Your task to perform on an android device: delete location history Image 0: 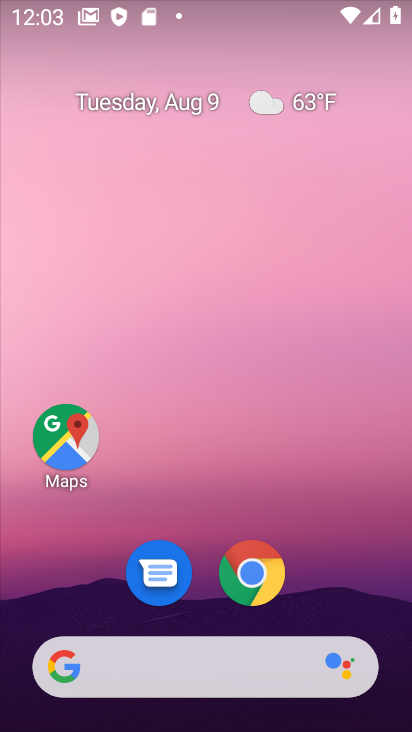
Step 0: drag from (169, 636) to (117, 278)
Your task to perform on an android device: delete location history Image 1: 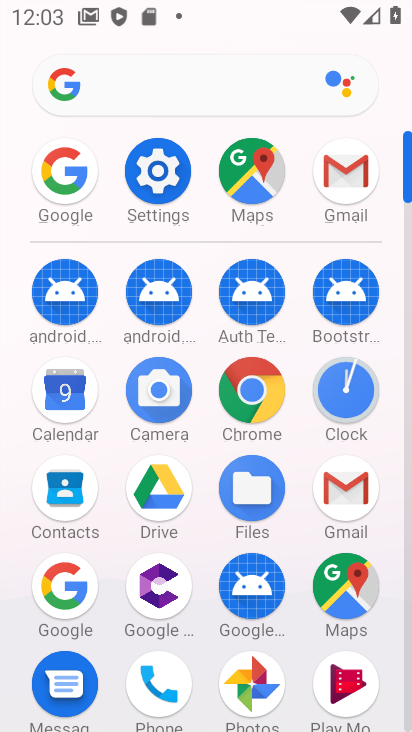
Step 1: click (160, 171)
Your task to perform on an android device: delete location history Image 2: 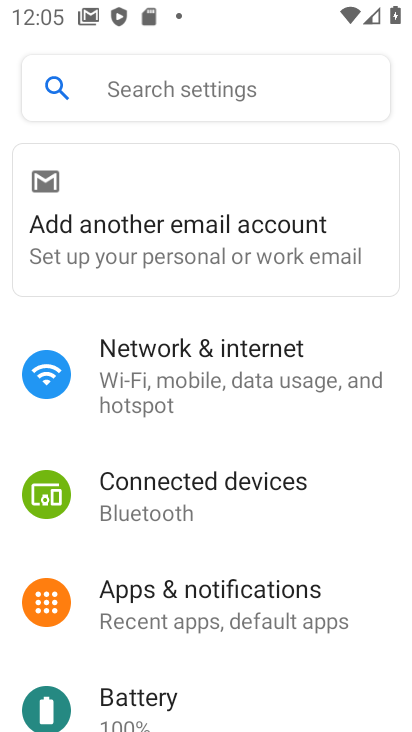
Step 2: drag from (210, 707) to (210, 283)
Your task to perform on an android device: delete location history Image 3: 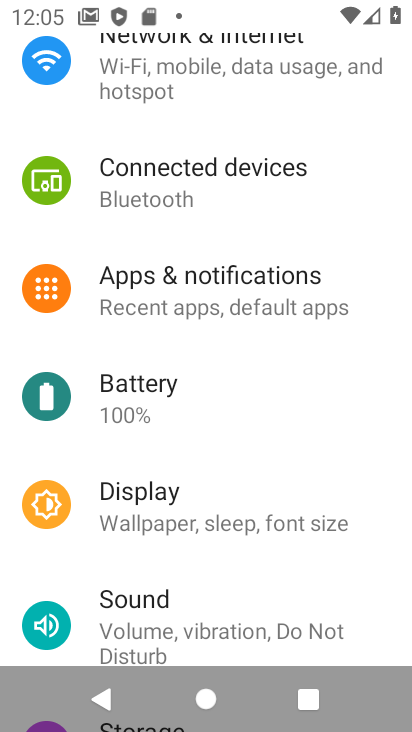
Step 3: drag from (180, 589) to (180, 148)
Your task to perform on an android device: delete location history Image 4: 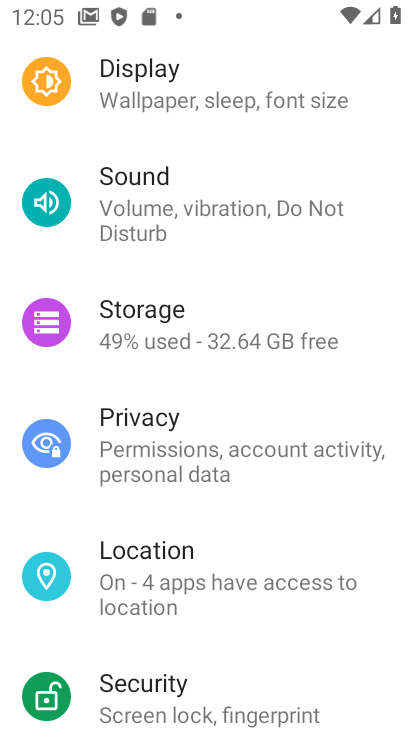
Step 4: drag from (149, 669) to (155, 225)
Your task to perform on an android device: delete location history Image 5: 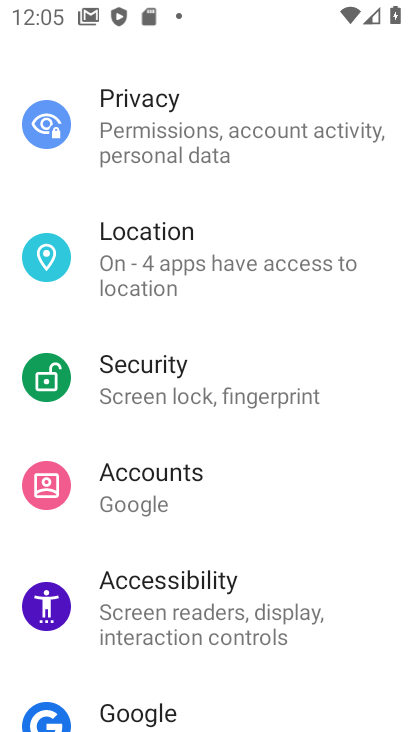
Step 5: click (156, 253)
Your task to perform on an android device: delete location history Image 6: 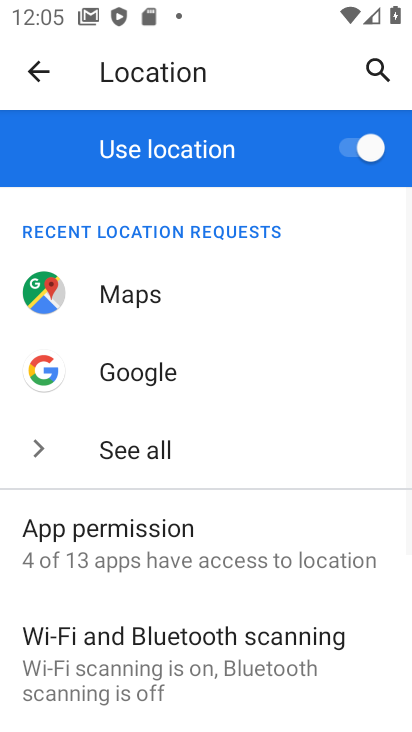
Step 6: drag from (124, 657) to (132, 299)
Your task to perform on an android device: delete location history Image 7: 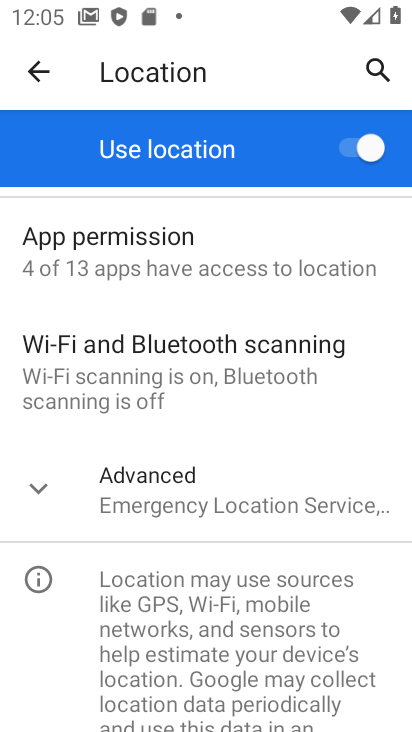
Step 7: click (151, 473)
Your task to perform on an android device: delete location history Image 8: 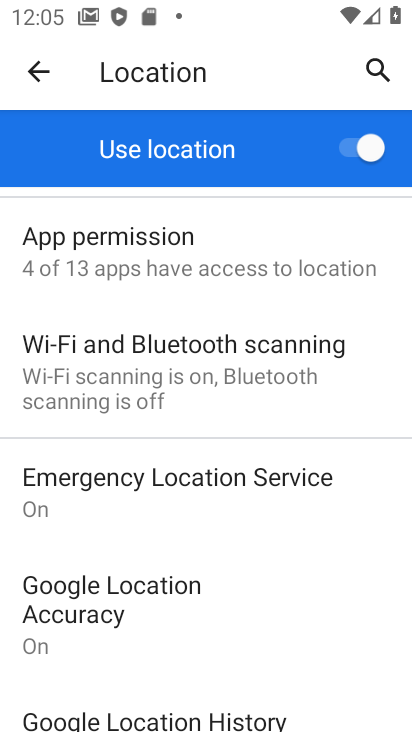
Step 8: drag from (145, 714) to (145, 332)
Your task to perform on an android device: delete location history Image 9: 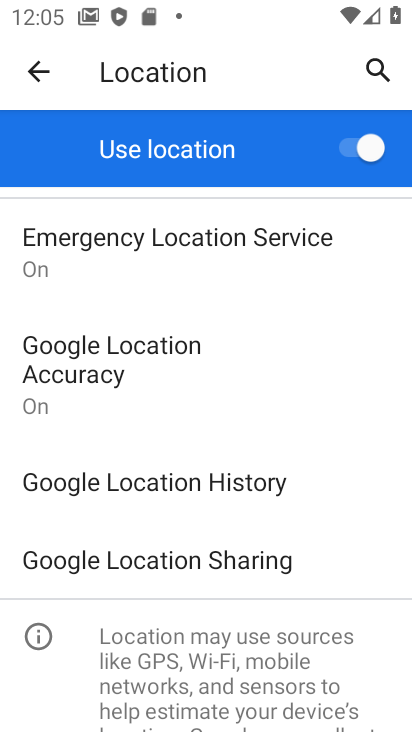
Step 9: drag from (102, 591) to (104, 256)
Your task to perform on an android device: delete location history Image 10: 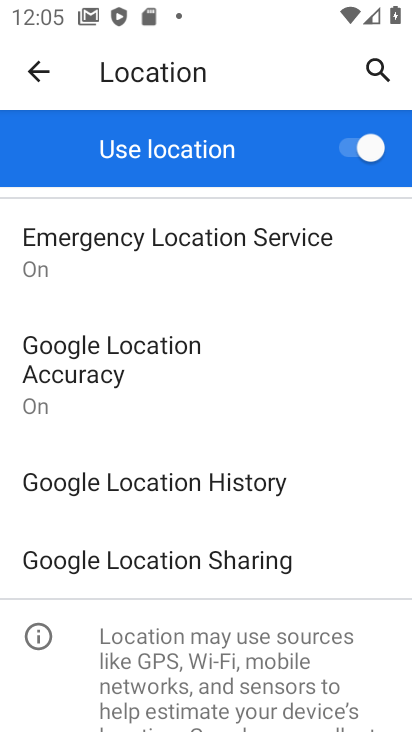
Step 10: click (131, 482)
Your task to perform on an android device: delete location history Image 11: 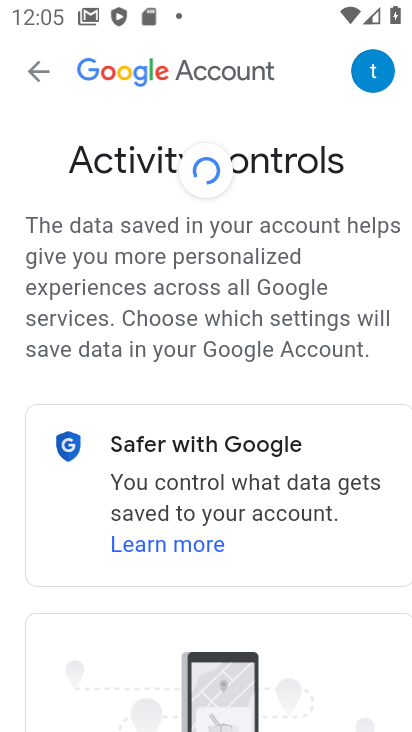
Step 11: drag from (174, 620) to (172, 134)
Your task to perform on an android device: delete location history Image 12: 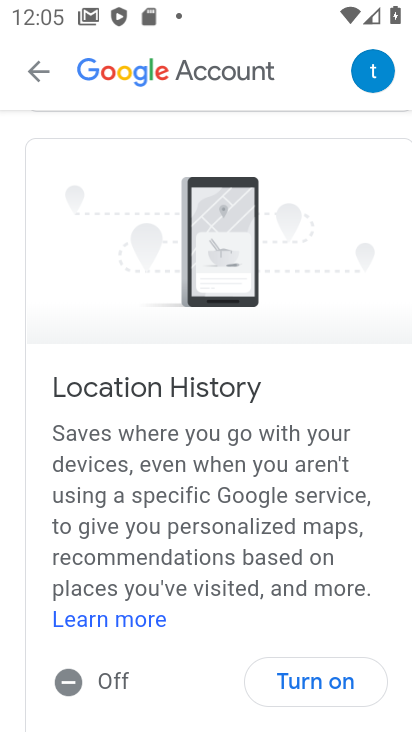
Step 12: drag from (198, 680) to (195, 365)
Your task to perform on an android device: delete location history Image 13: 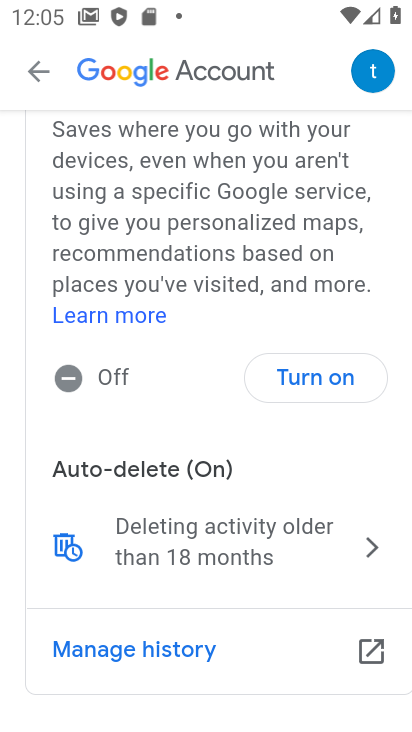
Step 13: click (198, 548)
Your task to perform on an android device: delete location history Image 14: 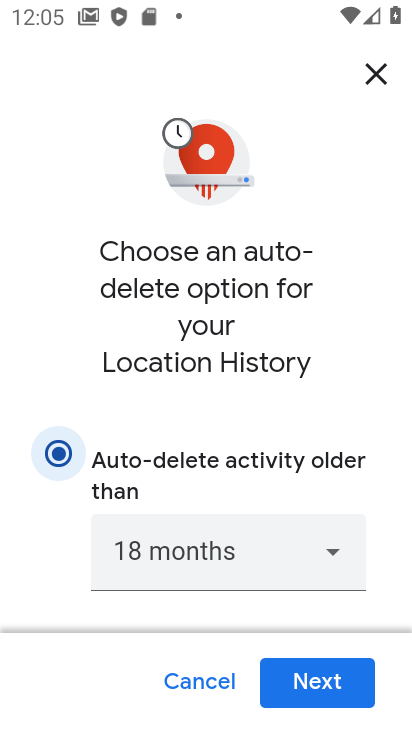
Step 14: click (331, 688)
Your task to perform on an android device: delete location history Image 15: 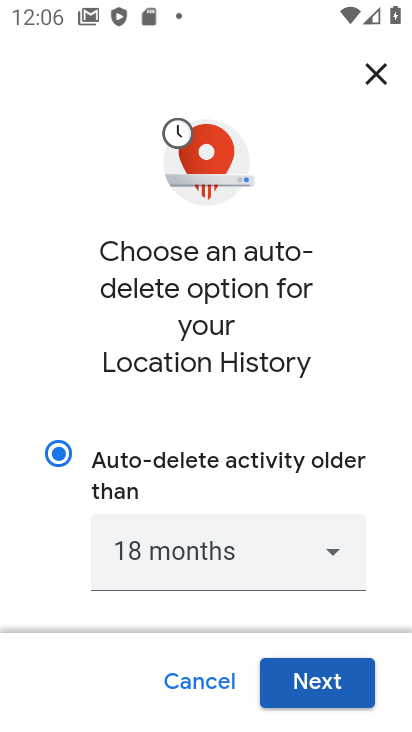
Step 15: click (310, 688)
Your task to perform on an android device: delete location history Image 16: 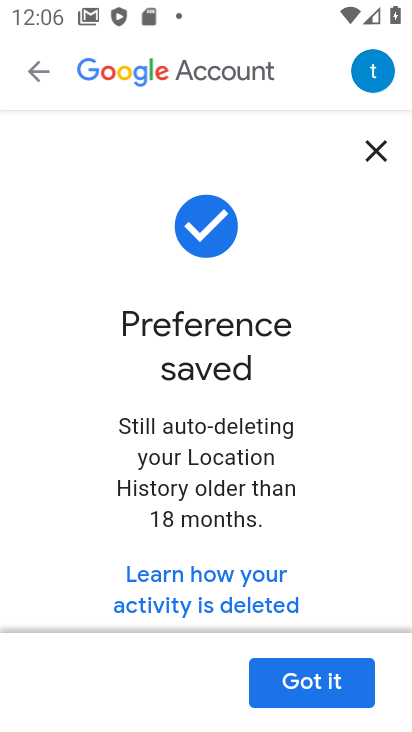
Step 16: click (306, 671)
Your task to perform on an android device: delete location history Image 17: 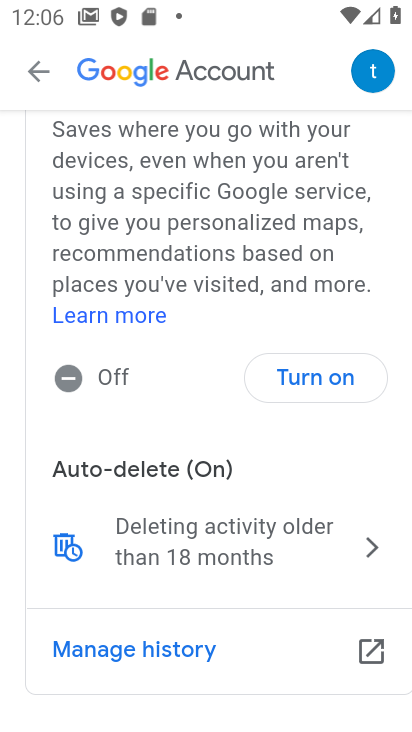
Step 17: task complete